Your task to perform on an android device: turn on showing notifications on the lock screen Image 0: 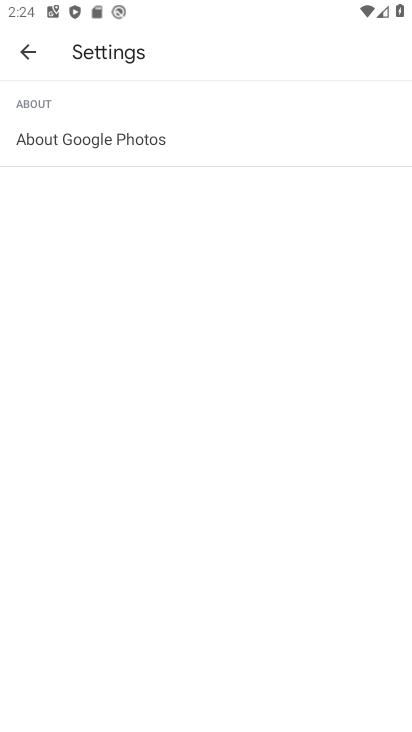
Step 0: drag from (175, 583) to (213, 11)
Your task to perform on an android device: turn on showing notifications on the lock screen Image 1: 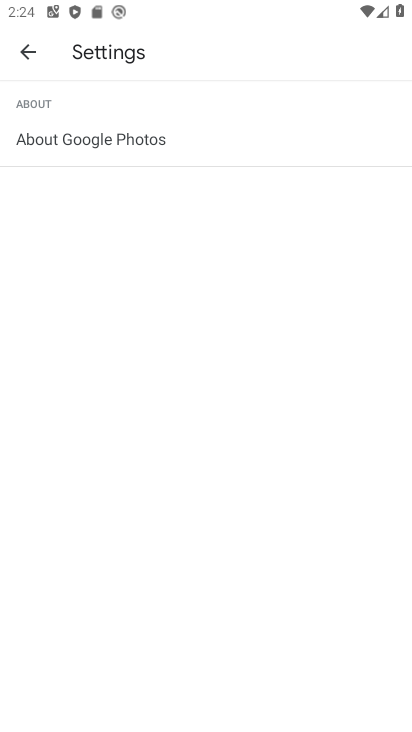
Step 1: press back button
Your task to perform on an android device: turn on showing notifications on the lock screen Image 2: 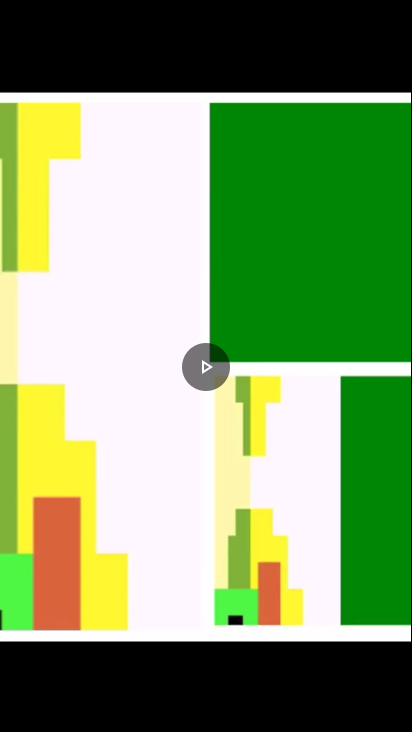
Step 2: drag from (258, 436) to (30, 583)
Your task to perform on an android device: turn on showing notifications on the lock screen Image 3: 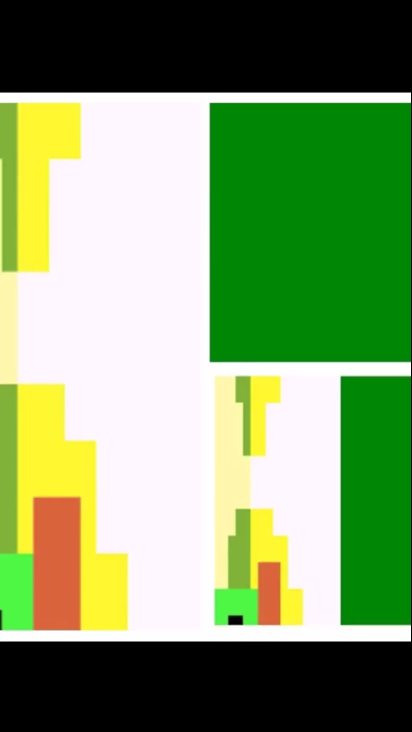
Step 3: press home button
Your task to perform on an android device: turn on showing notifications on the lock screen Image 4: 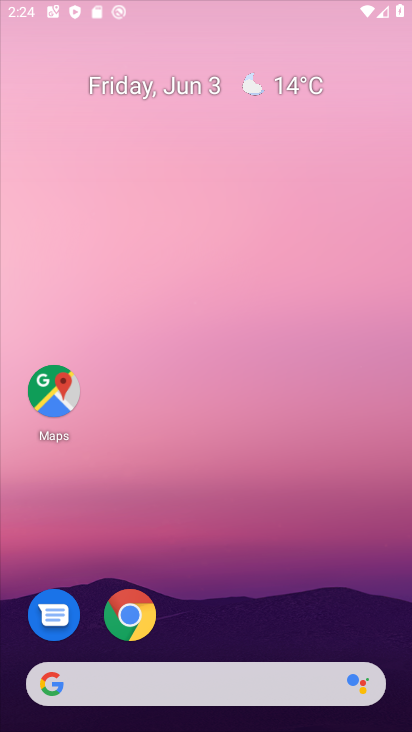
Step 4: drag from (231, 422) to (259, 205)
Your task to perform on an android device: turn on showing notifications on the lock screen Image 5: 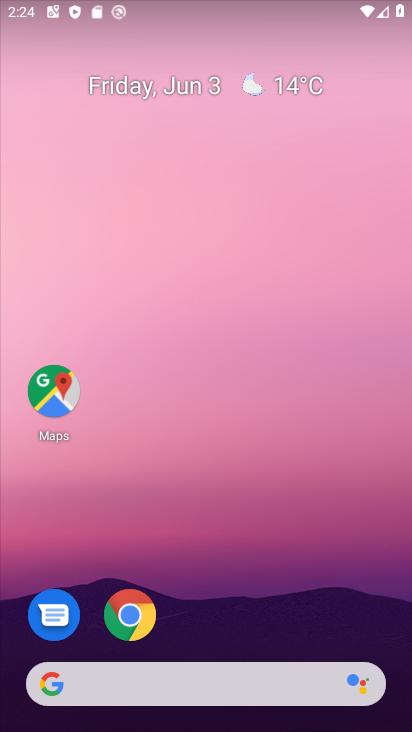
Step 5: drag from (208, 620) to (235, 232)
Your task to perform on an android device: turn on showing notifications on the lock screen Image 6: 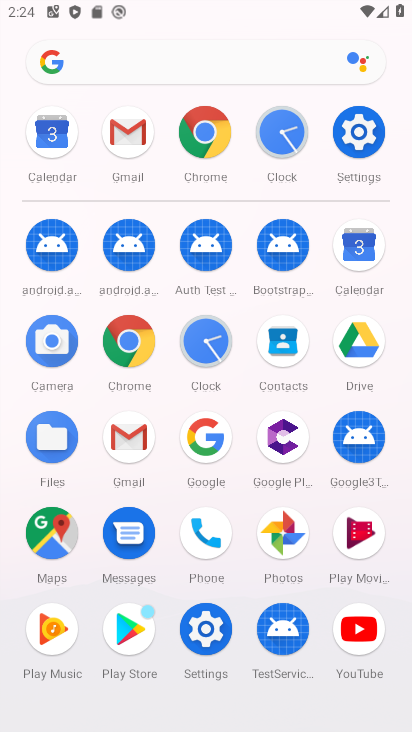
Step 6: drag from (240, 538) to (253, 318)
Your task to perform on an android device: turn on showing notifications on the lock screen Image 7: 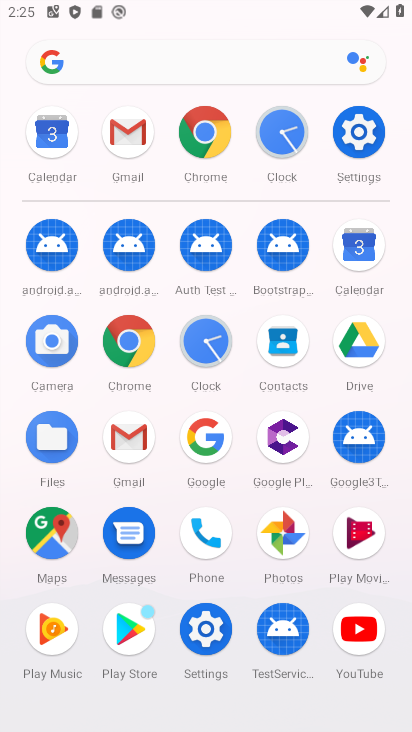
Step 7: click (209, 613)
Your task to perform on an android device: turn on showing notifications on the lock screen Image 8: 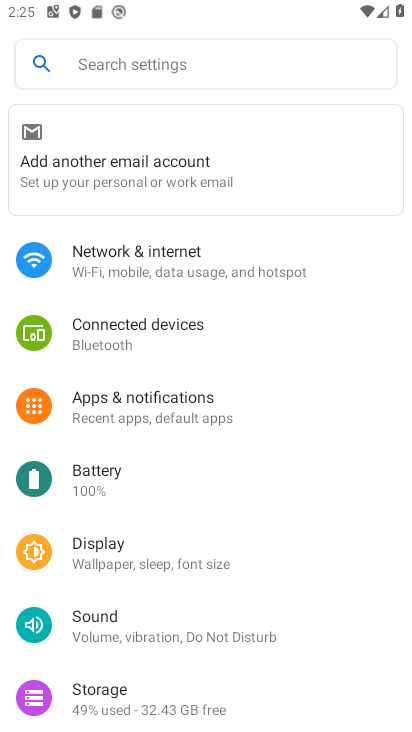
Step 8: click (151, 410)
Your task to perform on an android device: turn on showing notifications on the lock screen Image 9: 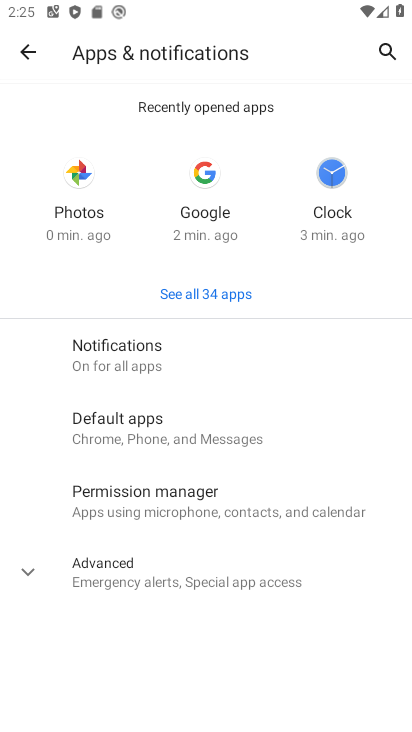
Step 9: click (157, 351)
Your task to perform on an android device: turn on showing notifications on the lock screen Image 10: 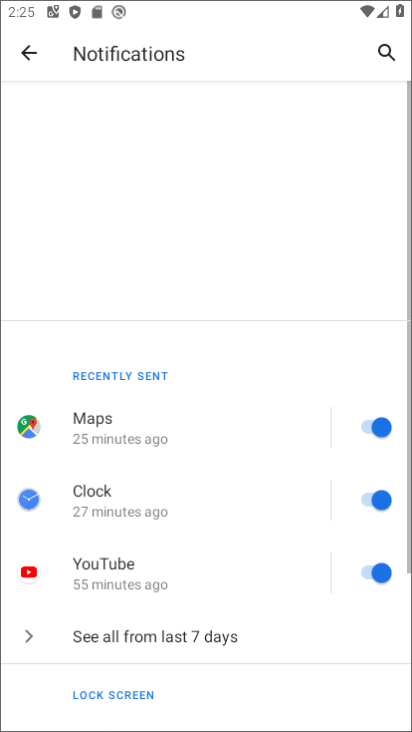
Step 10: drag from (210, 475) to (227, 230)
Your task to perform on an android device: turn on showing notifications on the lock screen Image 11: 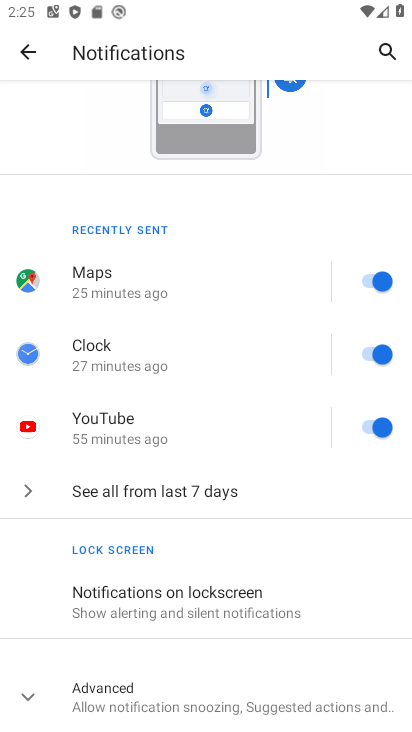
Step 11: click (182, 611)
Your task to perform on an android device: turn on showing notifications on the lock screen Image 12: 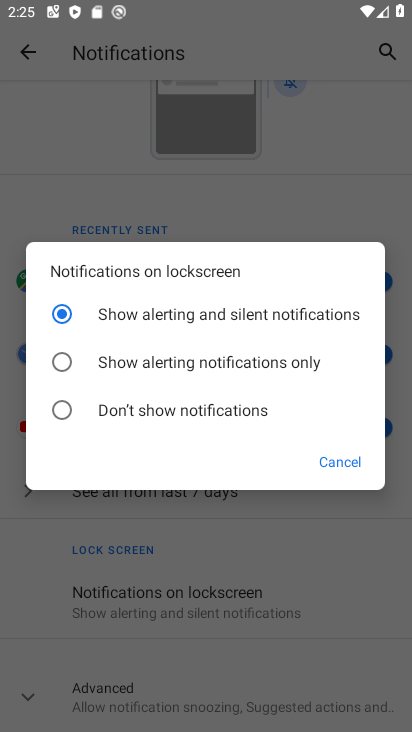
Step 12: click (112, 356)
Your task to perform on an android device: turn on showing notifications on the lock screen Image 13: 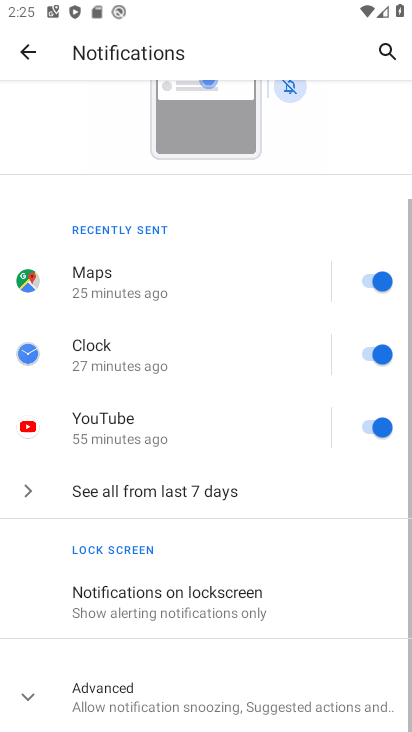
Step 13: task complete